Your task to perform on an android device: Open maps Image 0: 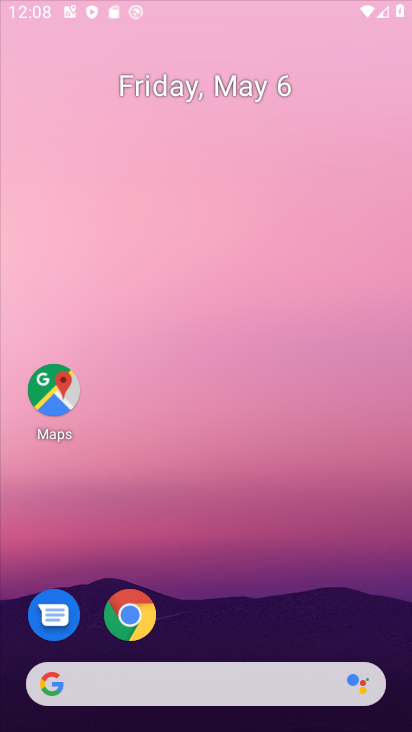
Step 0: drag from (205, 228) to (247, 173)
Your task to perform on an android device: Open maps Image 1: 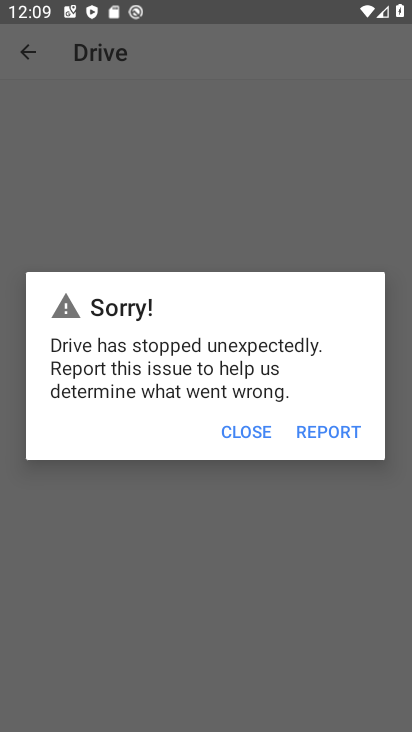
Step 1: press home button
Your task to perform on an android device: Open maps Image 2: 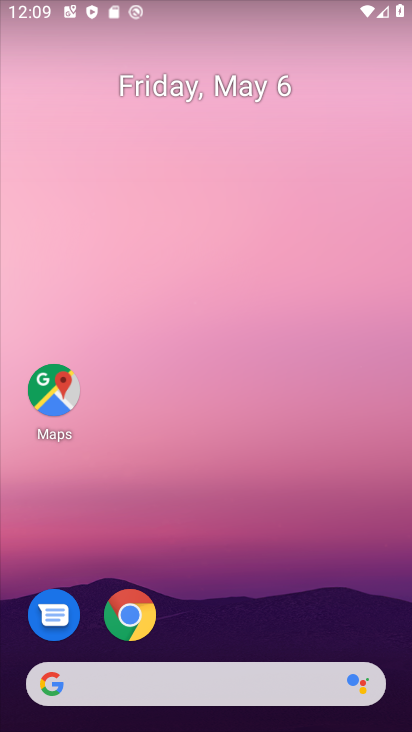
Step 2: click (70, 401)
Your task to perform on an android device: Open maps Image 3: 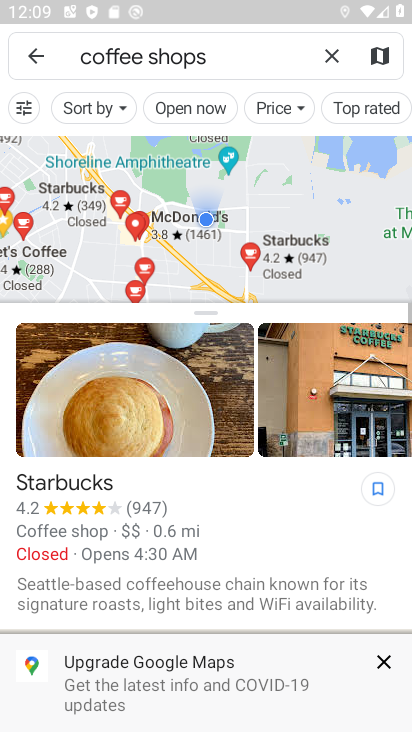
Step 3: task complete